Your task to perform on an android device: toggle pop-ups in chrome Image 0: 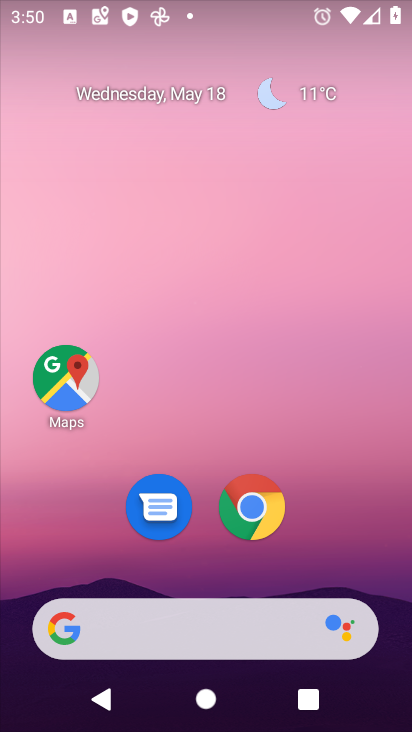
Step 0: click (253, 504)
Your task to perform on an android device: toggle pop-ups in chrome Image 1: 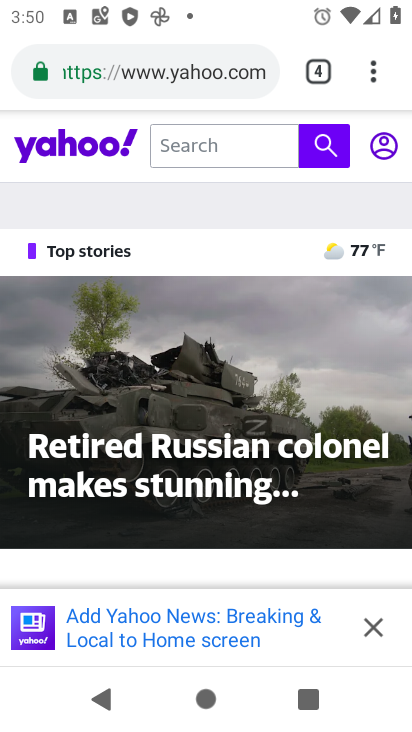
Step 1: click (369, 72)
Your task to perform on an android device: toggle pop-ups in chrome Image 2: 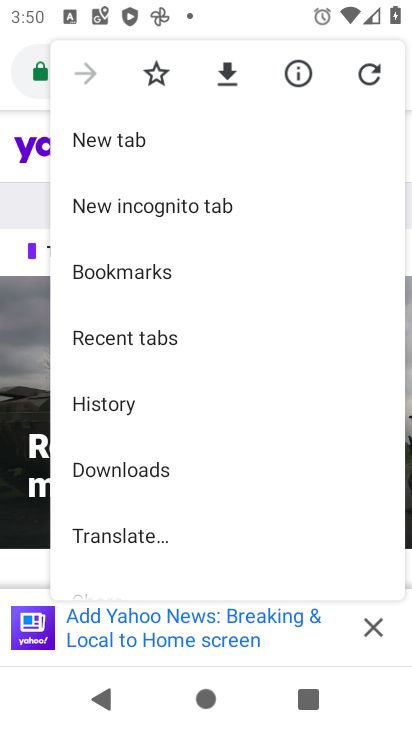
Step 2: drag from (203, 557) to (251, 110)
Your task to perform on an android device: toggle pop-ups in chrome Image 3: 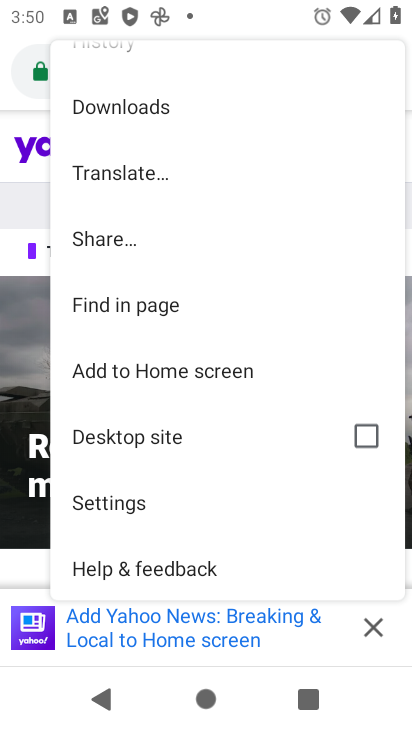
Step 3: click (114, 498)
Your task to perform on an android device: toggle pop-ups in chrome Image 4: 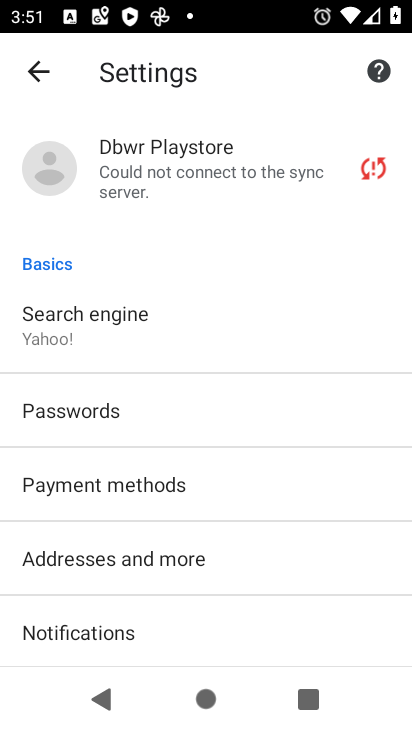
Step 4: drag from (219, 592) to (222, 251)
Your task to perform on an android device: toggle pop-ups in chrome Image 5: 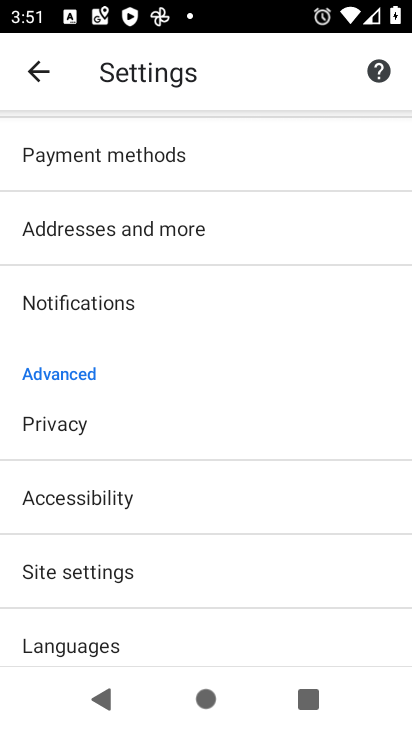
Step 5: click (72, 576)
Your task to perform on an android device: toggle pop-ups in chrome Image 6: 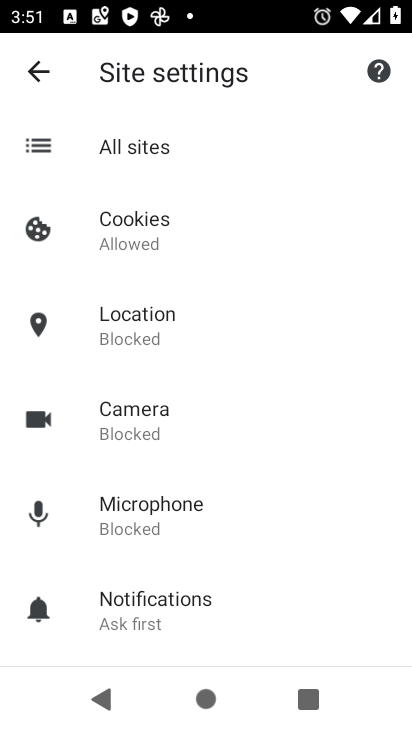
Step 6: drag from (272, 574) to (264, 206)
Your task to perform on an android device: toggle pop-ups in chrome Image 7: 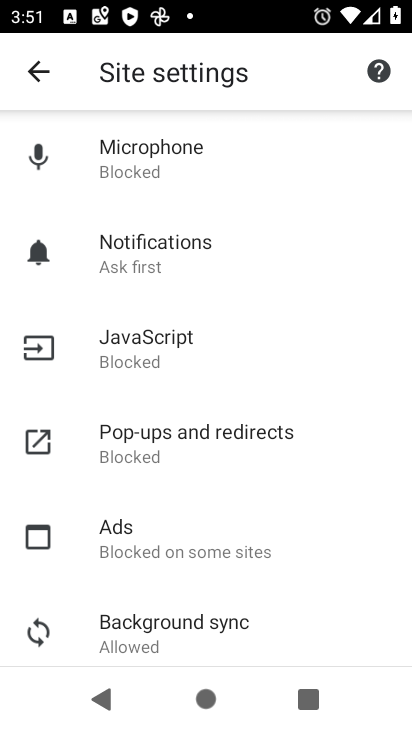
Step 7: click (113, 428)
Your task to perform on an android device: toggle pop-ups in chrome Image 8: 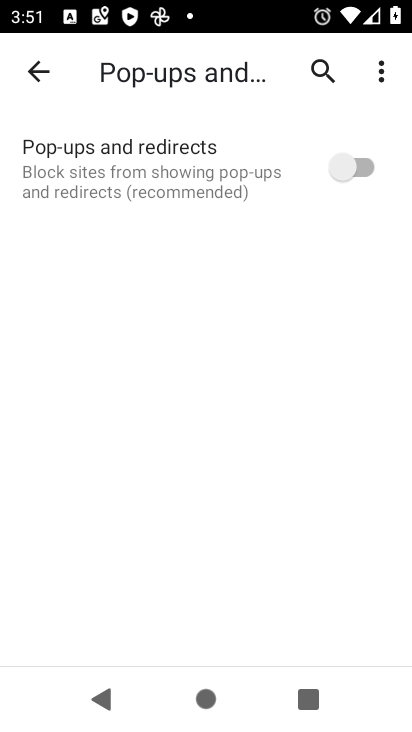
Step 8: click (366, 164)
Your task to perform on an android device: toggle pop-ups in chrome Image 9: 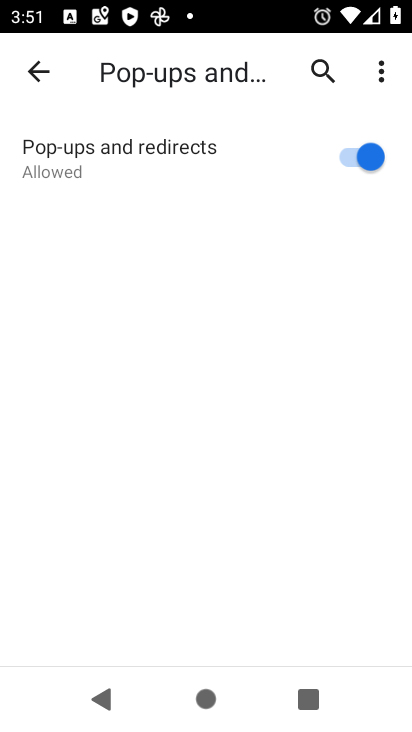
Step 9: task complete